Your task to perform on an android device: add a contact Image 0: 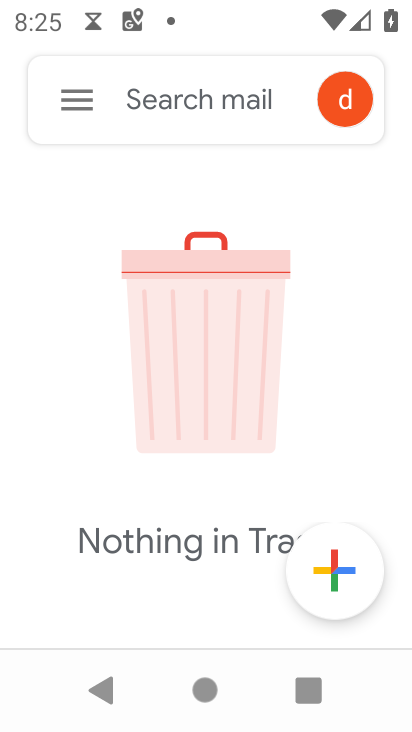
Step 0: press home button
Your task to perform on an android device: add a contact Image 1: 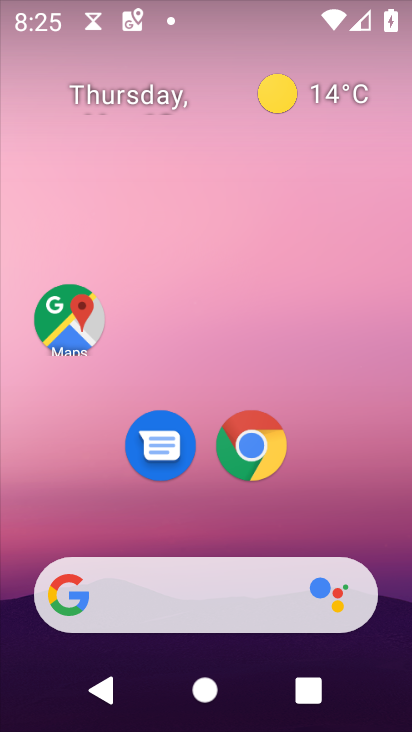
Step 1: drag from (224, 714) to (185, 124)
Your task to perform on an android device: add a contact Image 2: 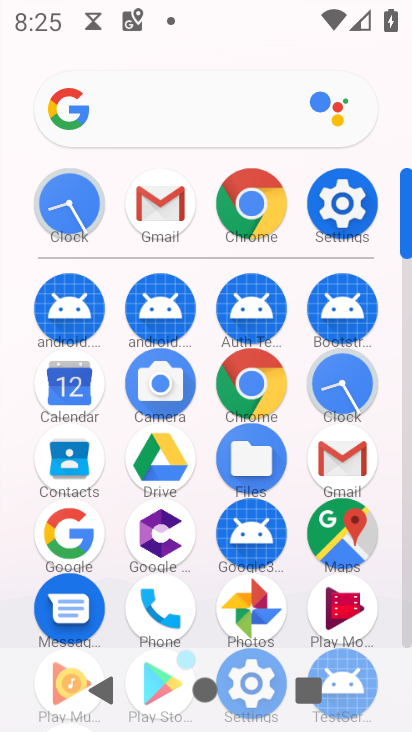
Step 2: click (70, 459)
Your task to perform on an android device: add a contact Image 3: 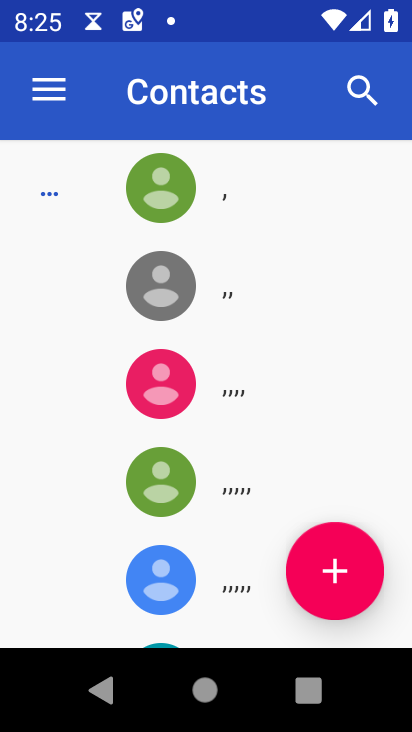
Step 3: click (341, 574)
Your task to perform on an android device: add a contact Image 4: 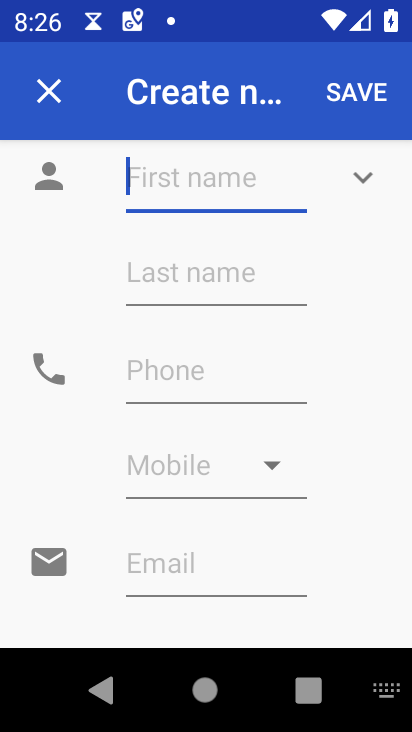
Step 4: type "tong sunn"
Your task to perform on an android device: add a contact Image 5: 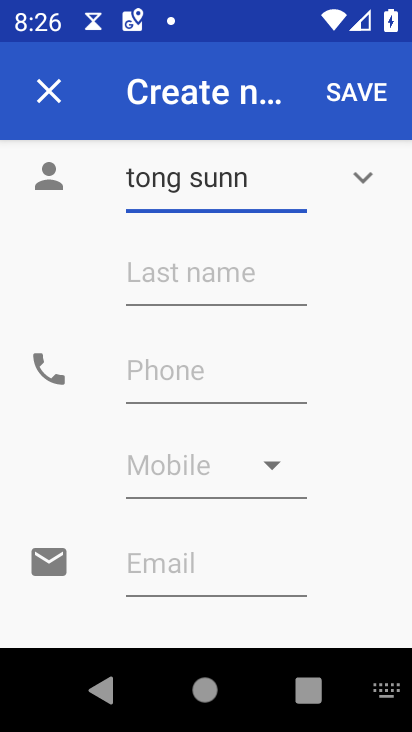
Step 5: click (161, 374)
Your task to perform on an android device: add a contact Image 6: 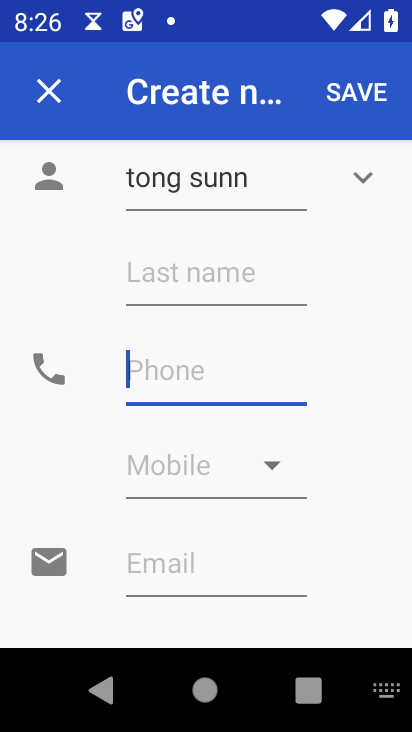
Step 6: type "987654"
Your task to perform on an android device: add a contact Image 7: 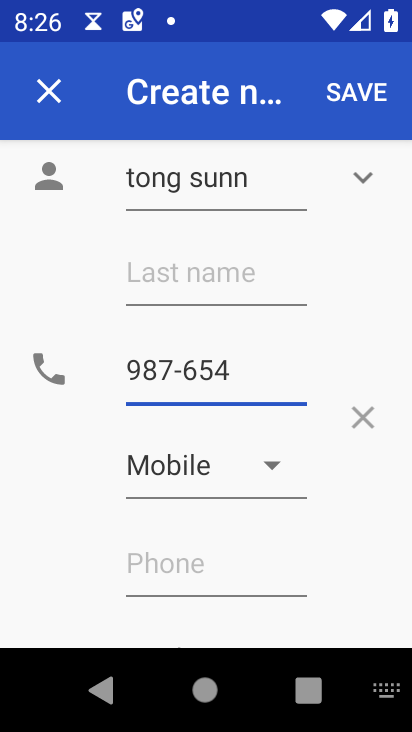
Step 7: click (369, 89)
Your task to perform on an android device: add a contact Image 8: 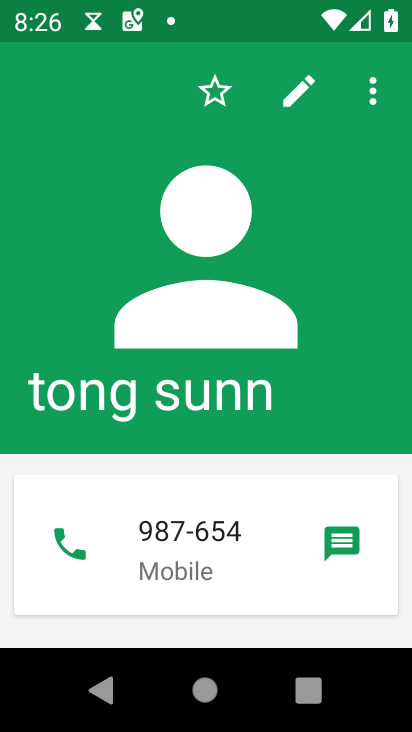
Step 8: task complete